Your task to perform on an android device: See recent photos Image 0: 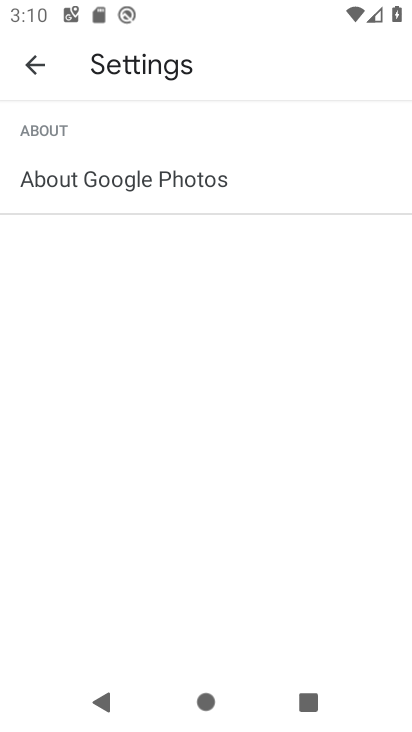
Step 0: press home button
Your task to perform on an android device: See recent photos Image 1: 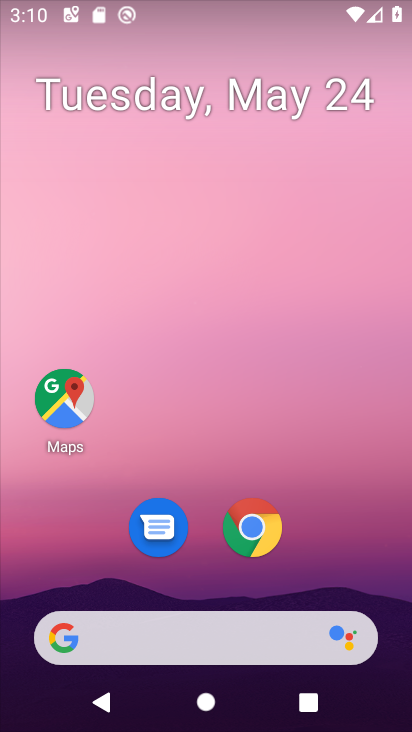
Step 1: drag from (353, 516) to (326, 8)
Your task to perform on an android device: See recent photos Image 2: 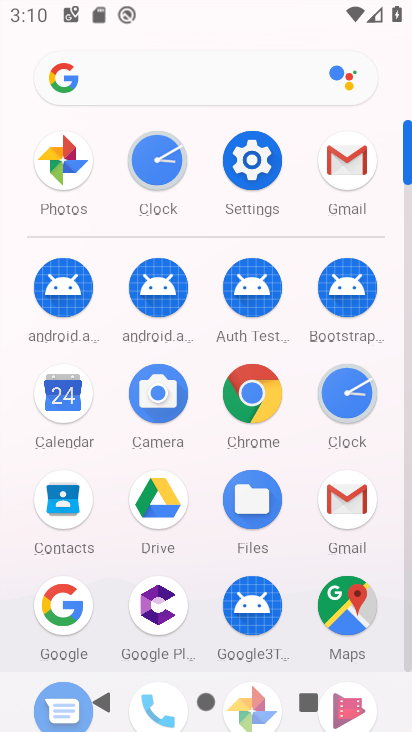
Step 2: click (60, 159)
Your task to perform on an android device: See recent photos Image 3: 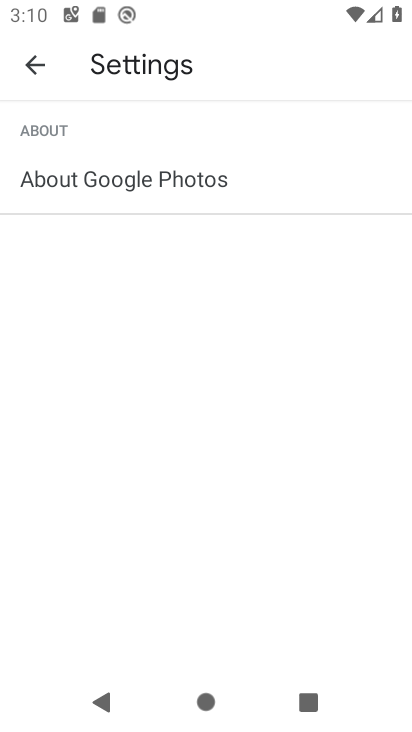
Step 3: click (37, 71)
Your task to perform on an android device: See recent photos Image 4: 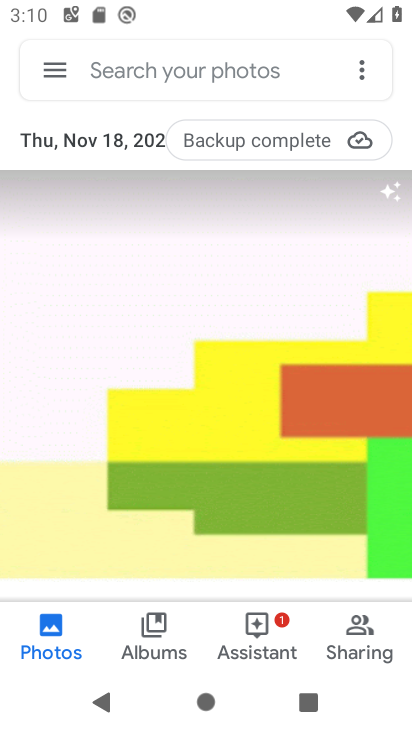
Step 4: task complete